Your task to perform on an android device: Open network settings Image 0: 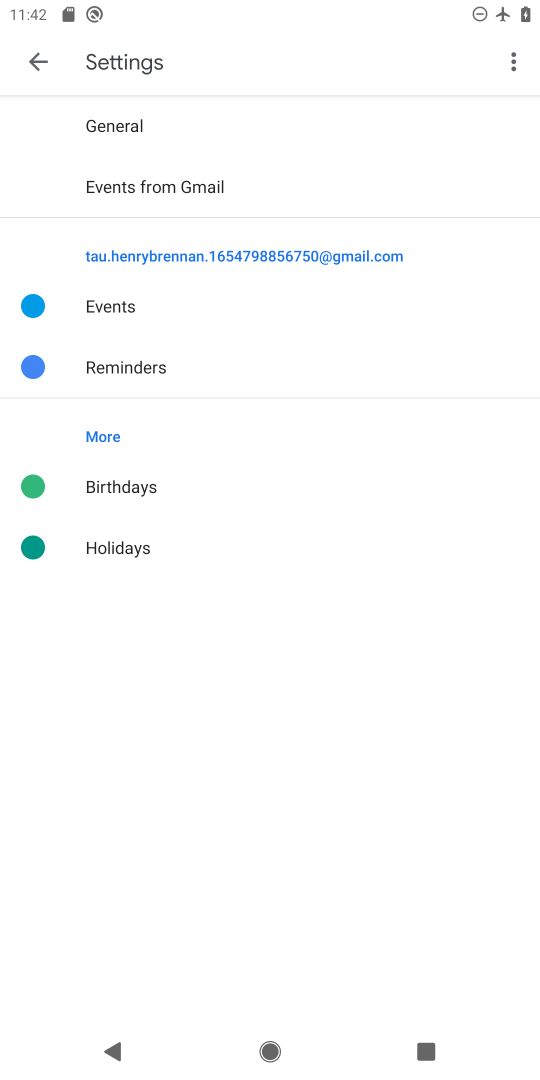
Step 0: press home button
Your task to perform on an android device: Open network settings Image 1: 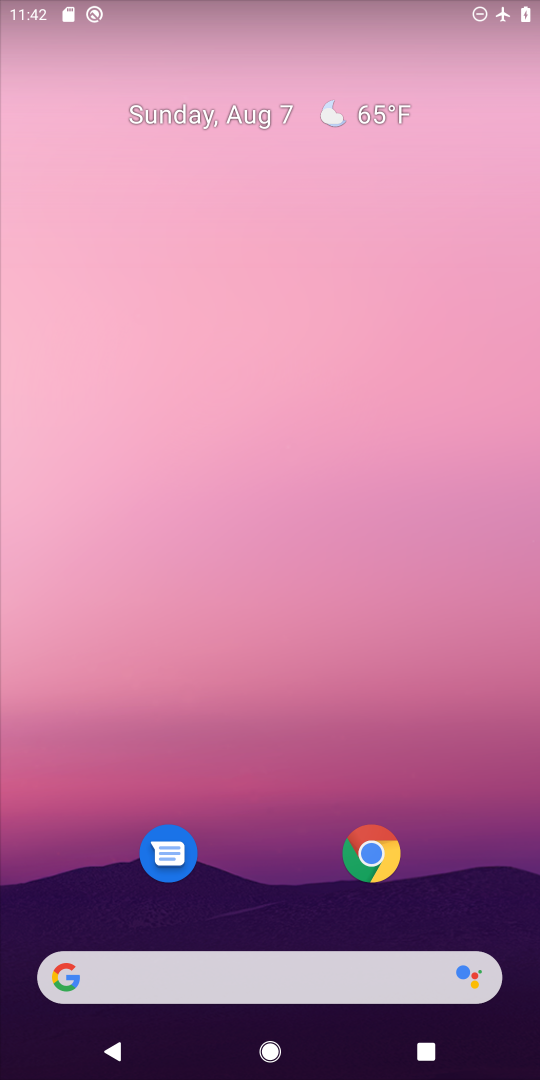
Step 1: drag from (272, 904) to (243, 160)
Your task to perform on an android device: Open network settings Image 2: 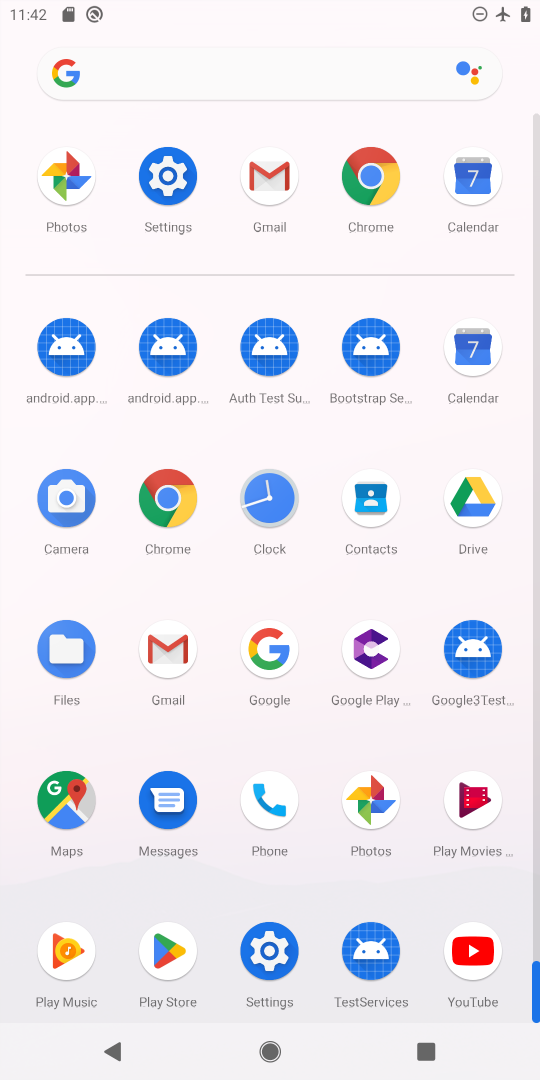
Step 2: click (178, 164)
Your task to perform on an android device: Open network settings Image 3: 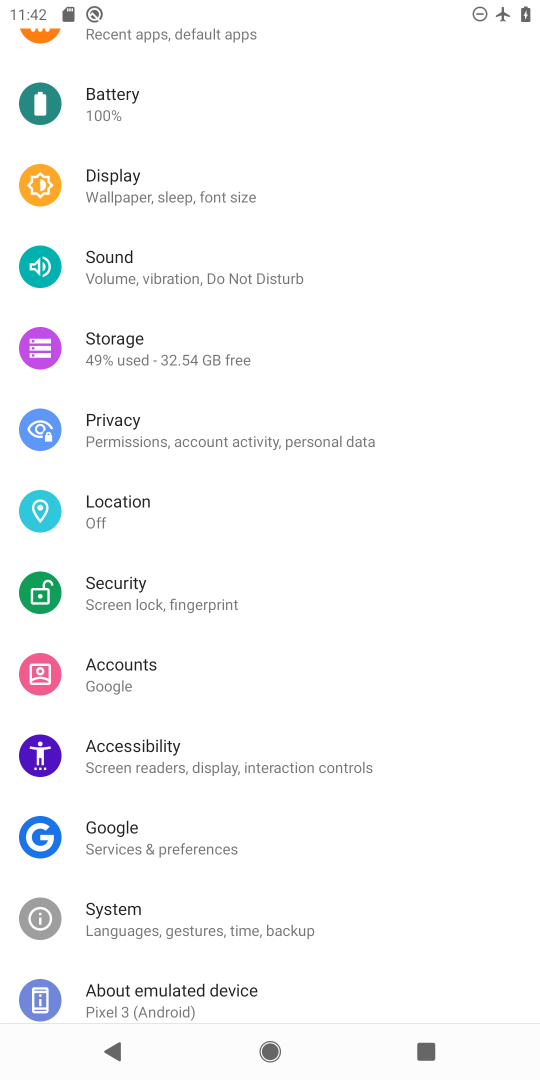
Step 3: drag from (102, 205) to (144, 957)
Your task to perform on an android device: Open network settings Image 4: 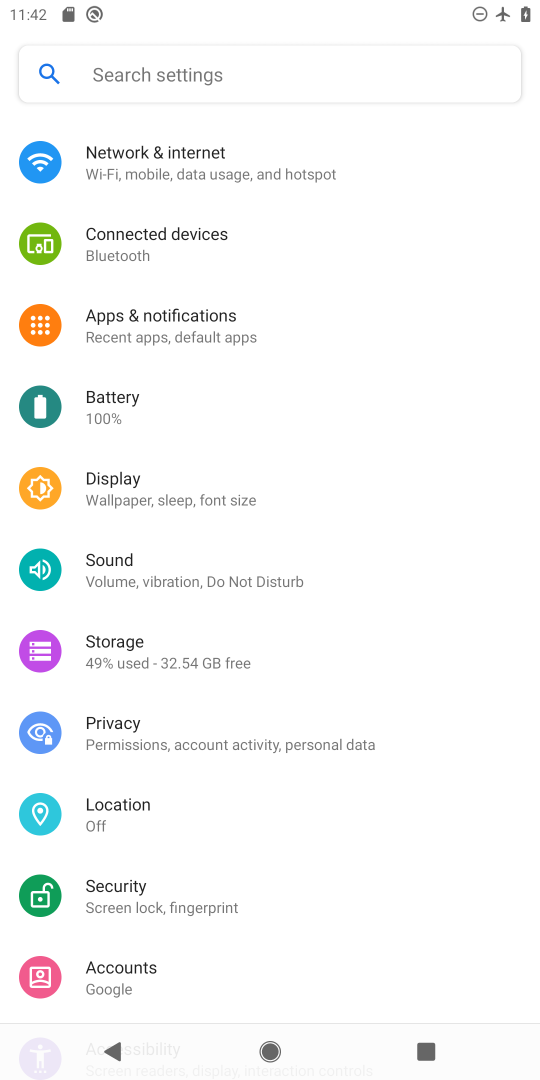
Step 4: click (162, 152)
Your task to perform on an android device: Open network settings Image 5: 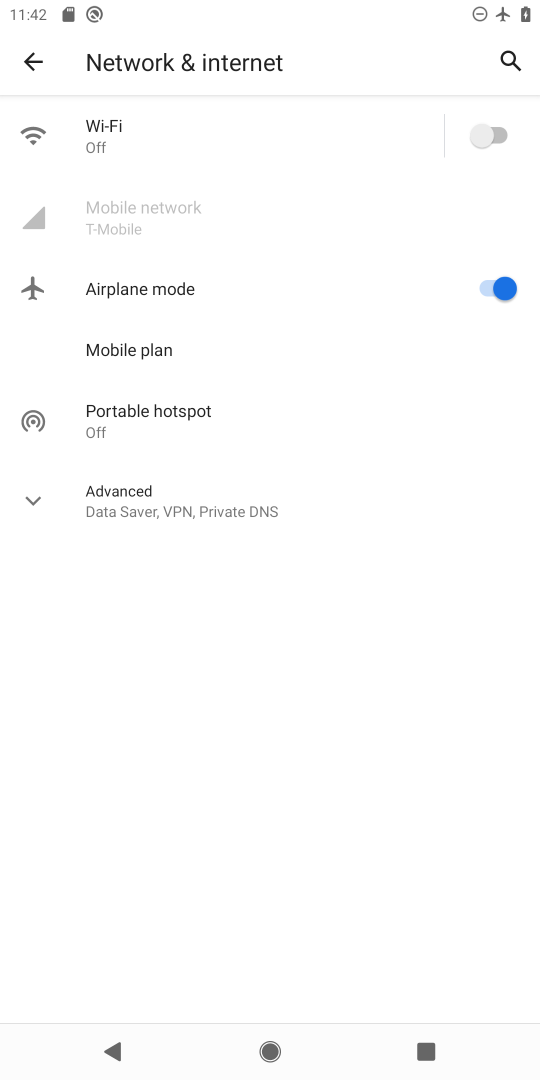
Step 5: task complete